Your task to perform on an android device: open sync settings in chrome Image 0: 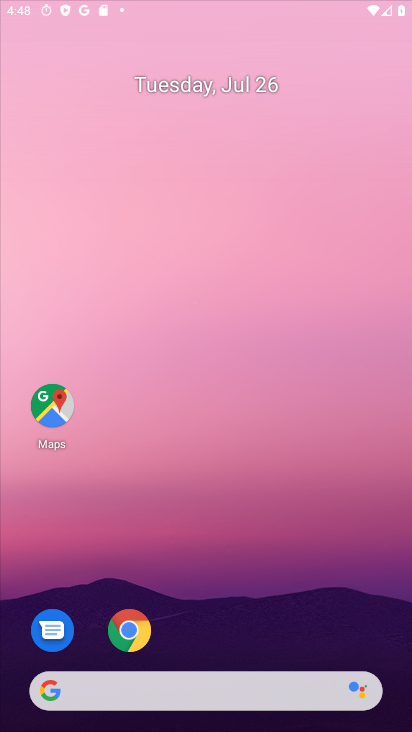
Step 0: drag from (289, 555) to (277, 5)
Your task to perform on an android device: open sync settings in chrome Image 1: 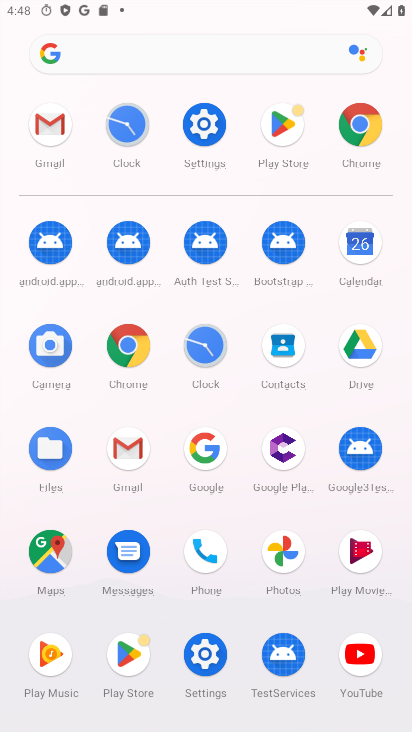
Step 1: click (364, 131)
Your task to perform on an android device: open sync settings in chrome Image 2: 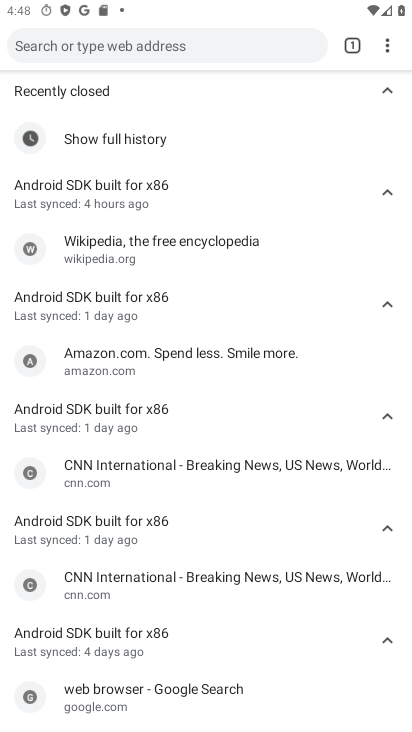
Step 2: drag from (392, 46) to (272, 382)
Your task to perform on an android device: open sync settings in chrome Image 3: 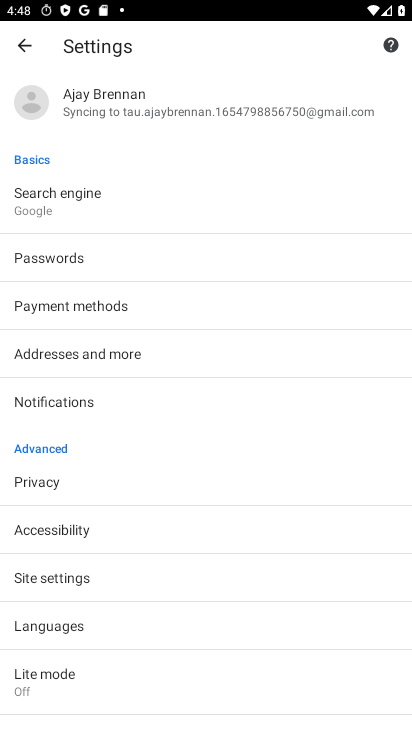
Step 3: click (68, 213)
Your task to perform on an android device: open sync settings in chrome Image 4: 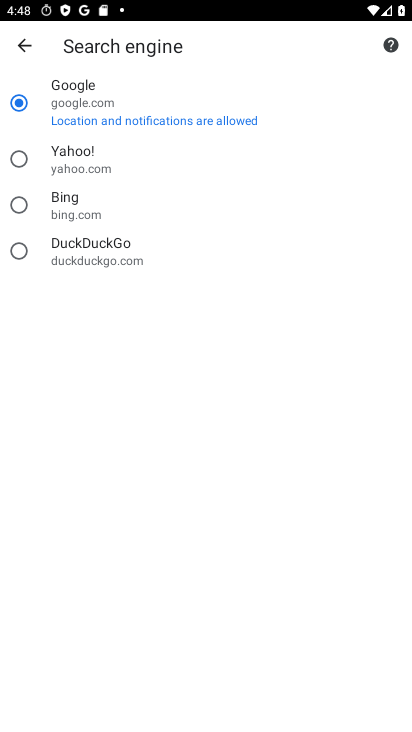
Step 4: click (25, 46)
Your task to perform on an android device: open sync settings in chrome Image 5: 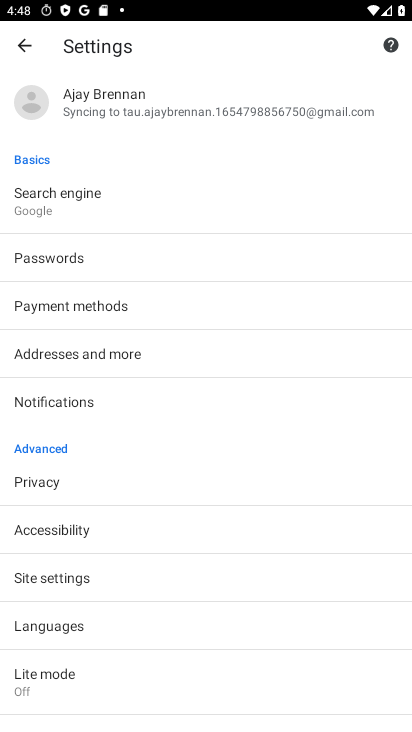
Step 5: click (199, 116)
Your task to perform on an android device: open sync settings in chrome Image 6: 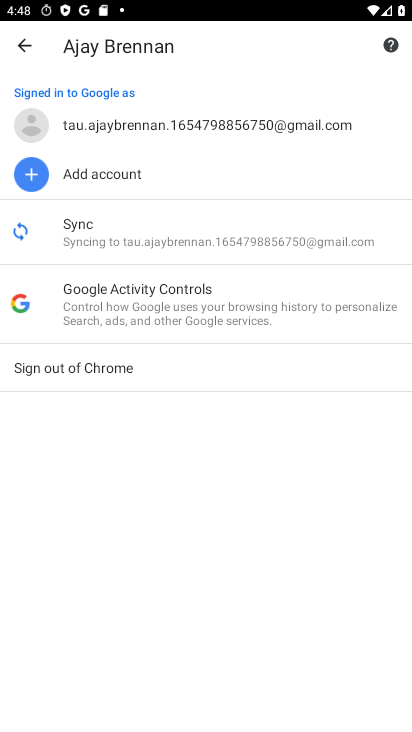
Step 6: click (89, 229)
Your task to perform on an android device: open sync settings in chrome Image 7: 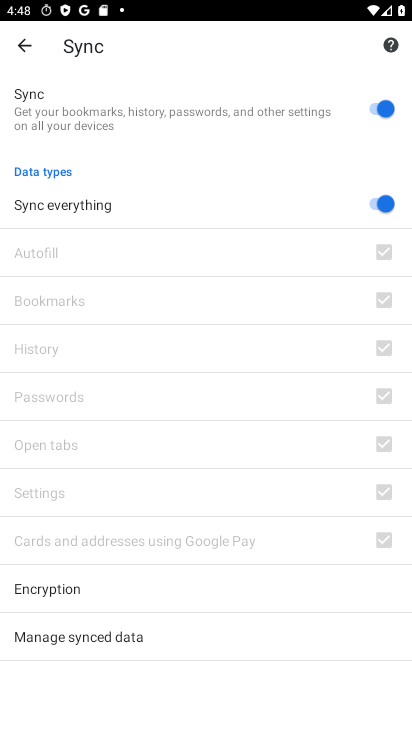
Step 7: task complete